Your task to perform on an android device: Open CNN.com Image 0: 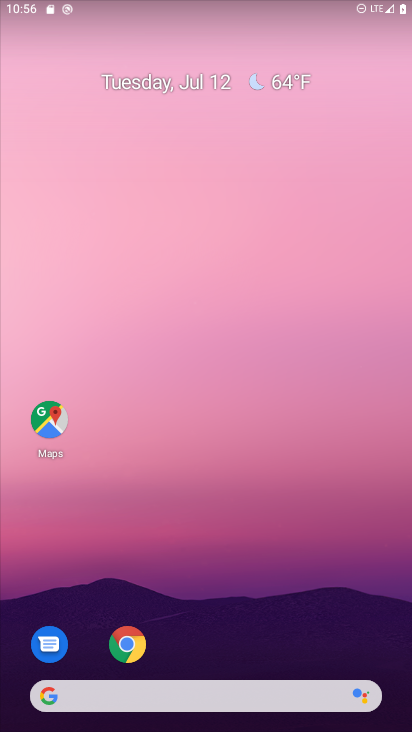
Step 0: click (137, 648)
Your task to perform on an android device: Open CNN.com Image 1: 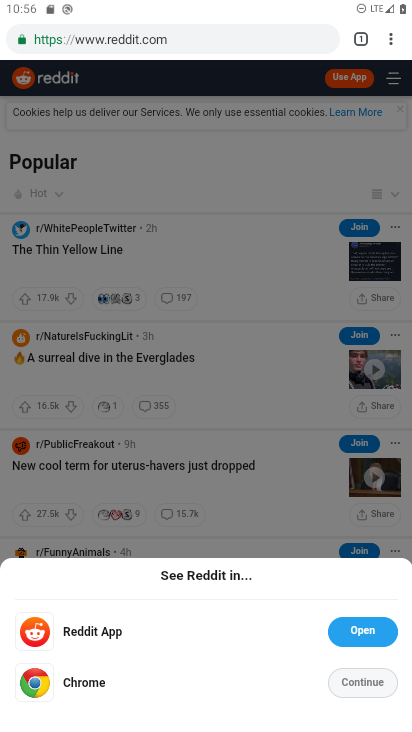
Step 1: click (250, 46)
Your task to perform on an android device: Open CNN.com Image 2: 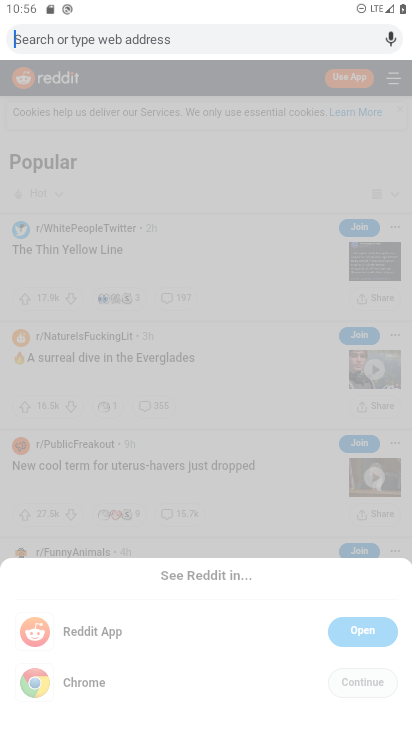
Step 2: click (250, 46)
Your task to perform on an android device: Open CNN.com Image 3: 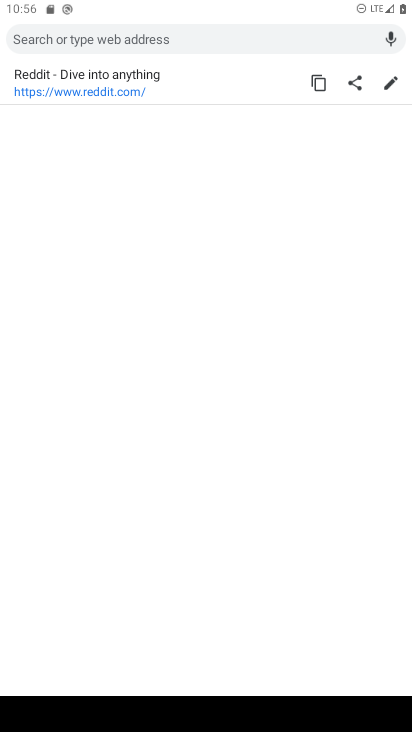
Step 3: type "cnn.com"
Your task to perform on an android device: Open CNN.com Image 4: 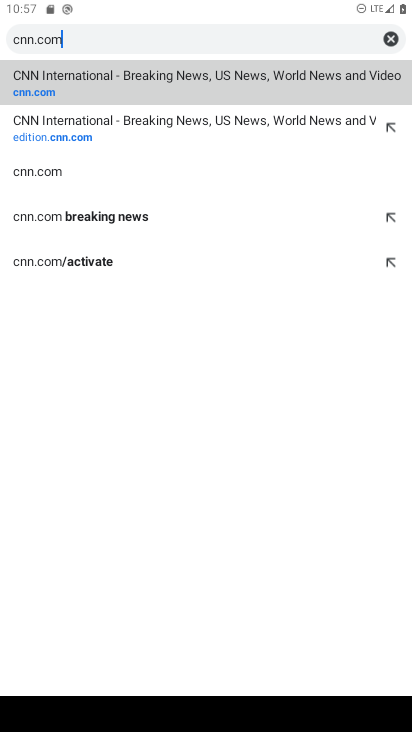
Step 4: click (155, 87)
Your task to perform on an android device: Open CNN.com Image 5: 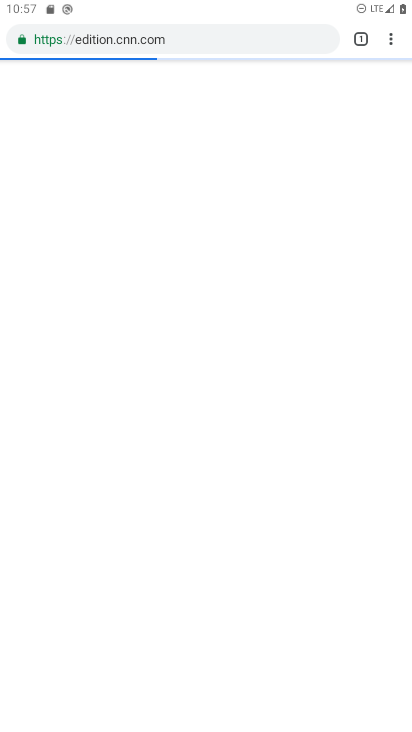
Step 5: task complete